Your task to perform on an android device: Search for logitech g933 on bestbuy.com, select the first entry, and add it to the cart. Image 0: 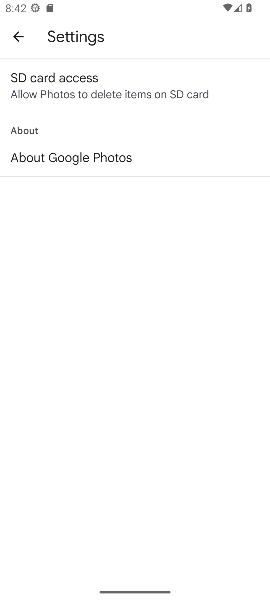
Step 0: press home button
Your task to perform on an android device: Search for logitech g933 on bestbuy.com, select the first entry, and add it to the cart. Image 1: 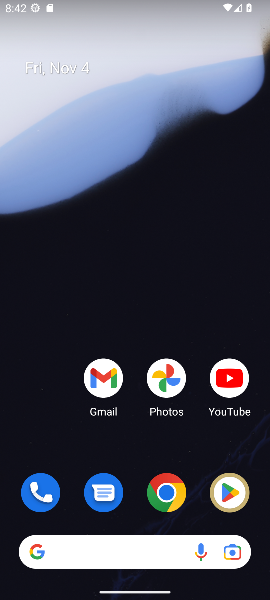
Step 1: drag from (129, 443) to (124, 64)
Your task to perform on an android device: Search for logitech g933 on bestbuy.com, select the first entry, and add it to the cart. Image 2: 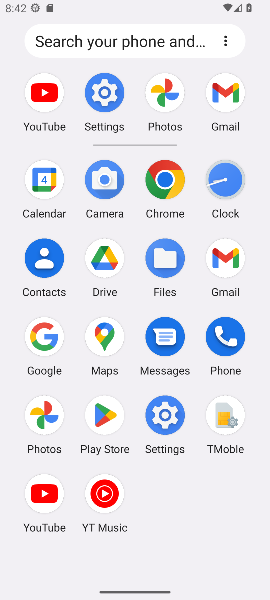
Step 2: click (159, 180)
Your task to perform on an android device: Search for logitech g933 on bestbuy.com, select the first entry, and add it to the cart. Image 3: 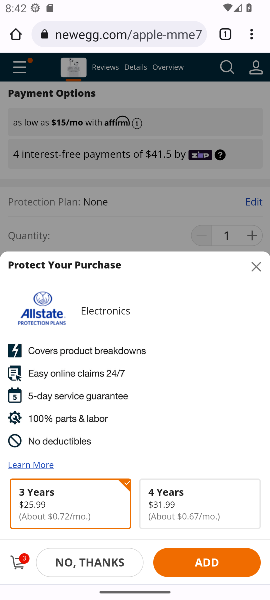
Step 3: click (141, 36)
Your task to perform on an android device: Search for logitech g933 on bestbuy.com, select the first entry, and add it to the cart. Image 4: 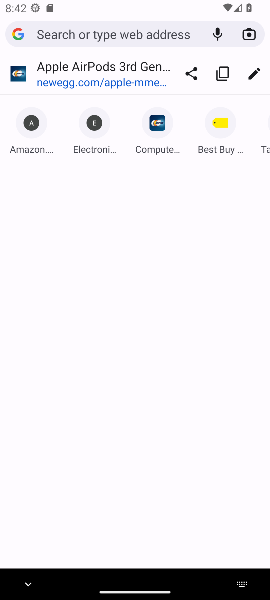
Step 4: type "bestbuy.com"
Your task to perform on an android device: Search for logitech g933 on bestbuy.com, select the first entry, and add it to the cart. Image 5: 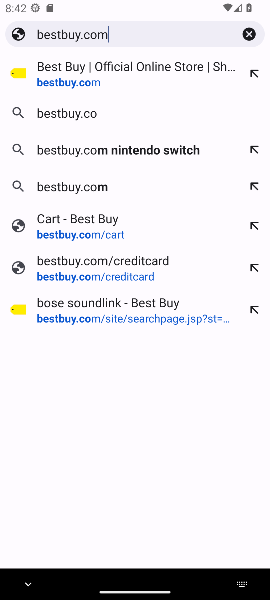
Step 5: press enter
Your task to perform on an android device: Search for logitech g933 on bestbuy.com, select the first entry, and add it to the cart. Image 6: 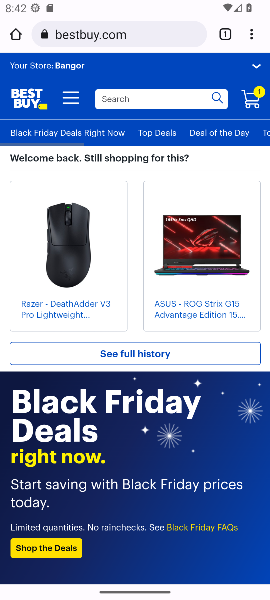
Step 6: click (185, 99)
Your task to perform on an android device: Search for logitech g933 on bestbuy.com, select the first entry, and add it to the cart. Image 7: 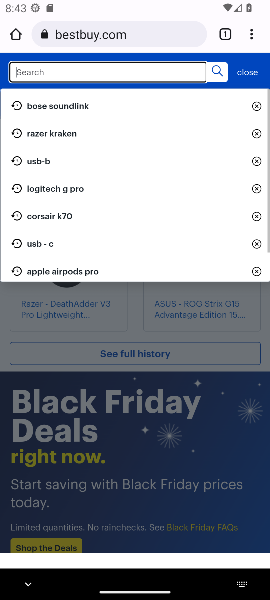
Step 7: type "logitech g933"
Your task to perform on an android device: Search for logitech g933 on bestbuy.com, select the first entry, and add it to the cart. Image 8: 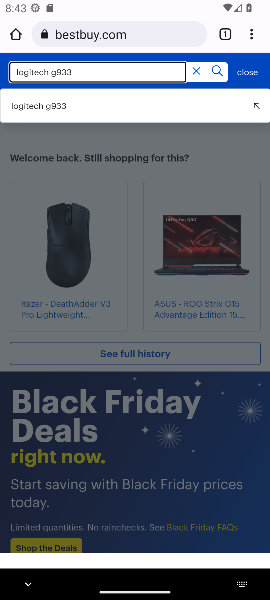
Step 8: press enter
Your task to perform on an android device: Search for logitech g933 on bestbuy.com, select the first entry, and add it to the cart. Image 9: 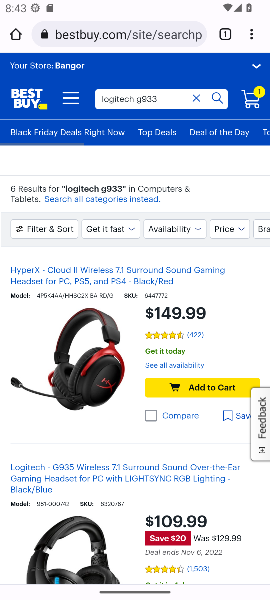
Step 9: task complete